Your task to perform on an android device: manage bookmarks in the chrome app Image 0: 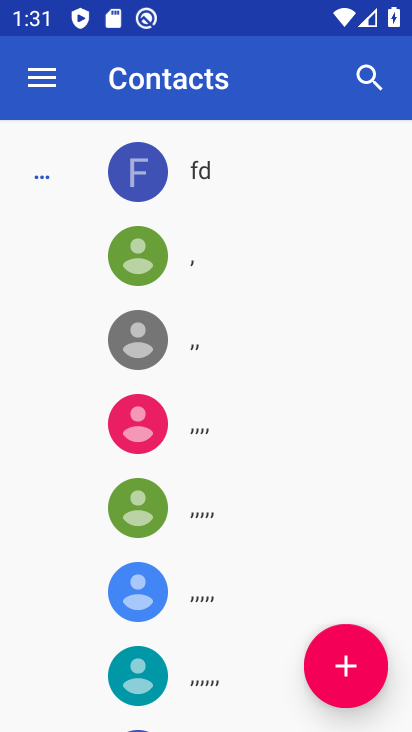
Step 0: press home button
Your task to perform on an android device: manage bookmarks in the chrome app Image 1: 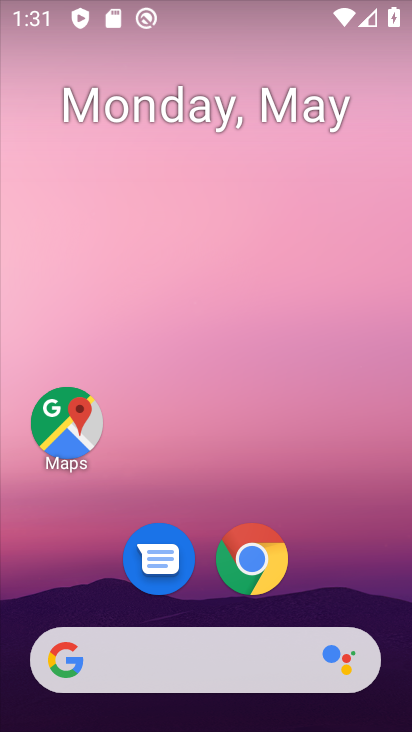
Step 1: click (249, 560)
Your task to perform on an android device: manage bookmarks in the chrome app Image 2: 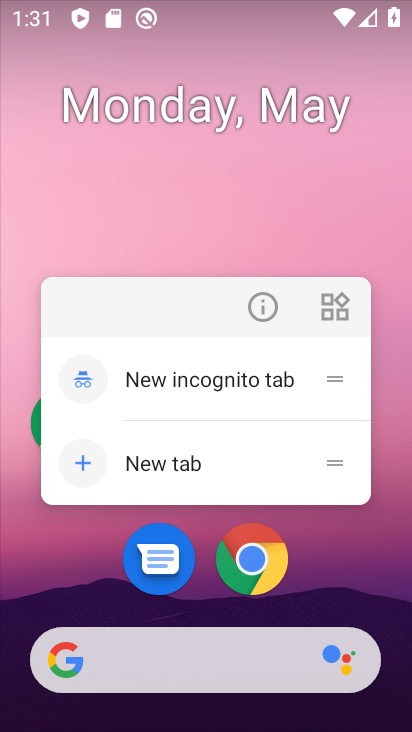
Step 2: click (325, 595)
Your task to perform on an android device: manage bookmarks in the chrome app Image 3: 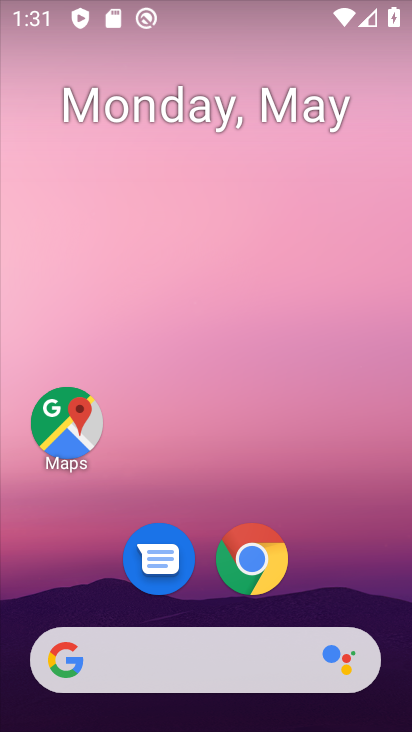
Step 3: drag from (343, 580) to (315, 156)
Your task to perform on an android device: manage bookmarks in the chrome app Image 4: 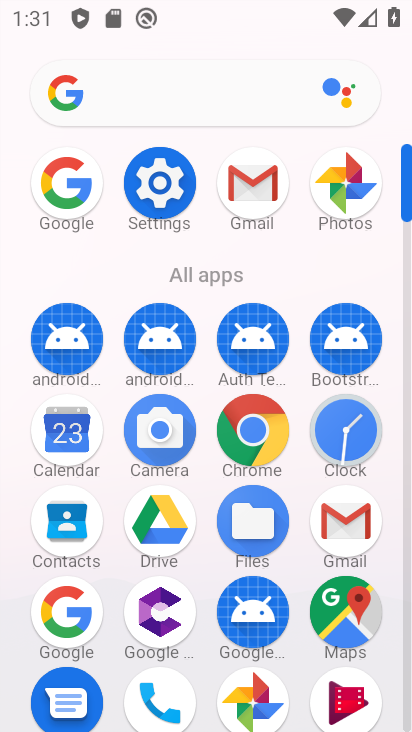
Step 4: click (251, 430)
Your task to perform on an android device: manage bookmarks in the chrome app Image 5: 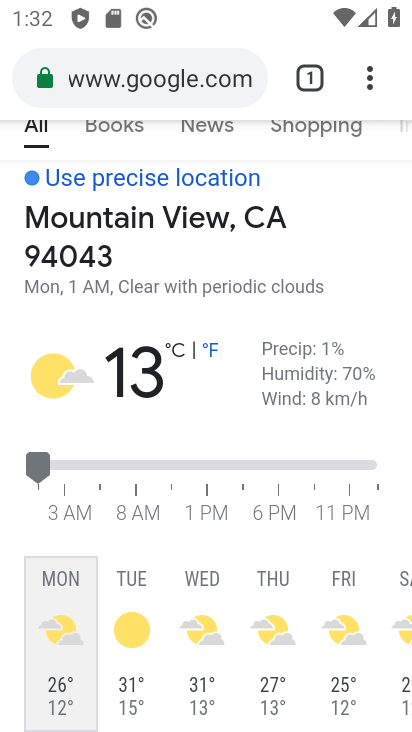
Step 5: task complete